Your task to perform on an android device: check storage Image 0: 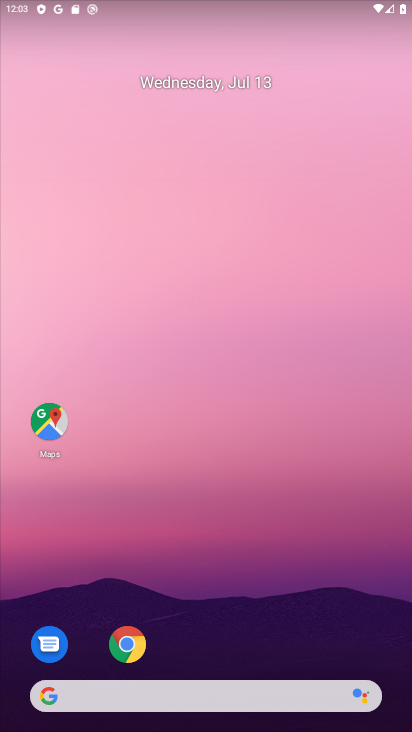
Step 0: drag from (226, 643) to (322, 130)
Your task to perform on an android device: check storage Image 1: 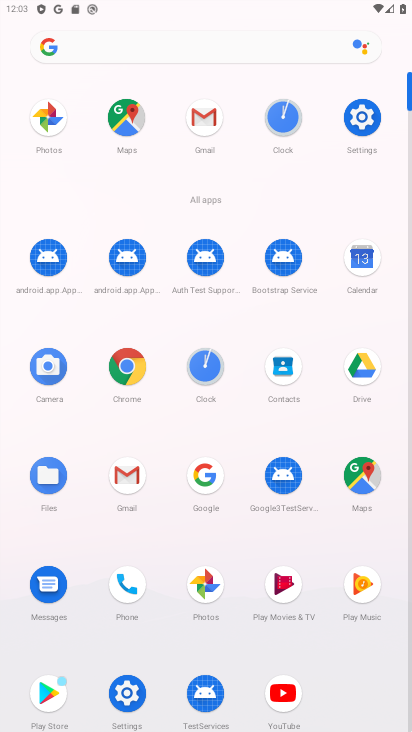
Step 1: click (355, 120)
Your task to perform on an android device: check storage Image 2: 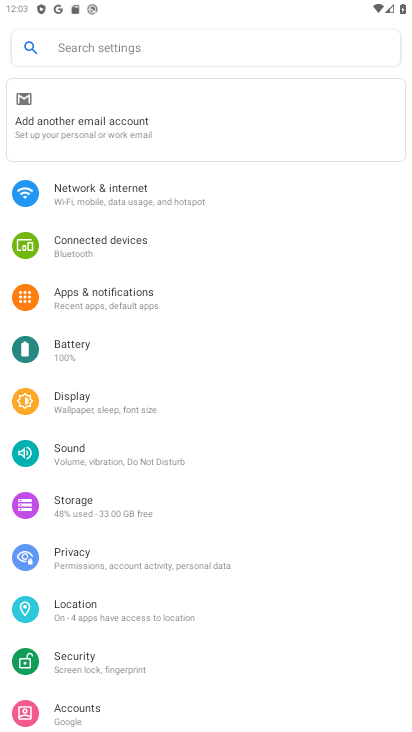
Step 2: click (170, 514)
Your task to perform on an android device: check storage Image 3: 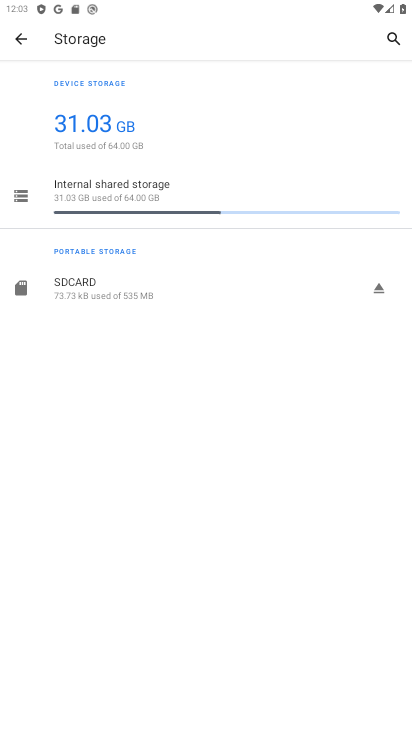
Step 3: task complete